Your task to perform on an android device: Go to settings Image 0: 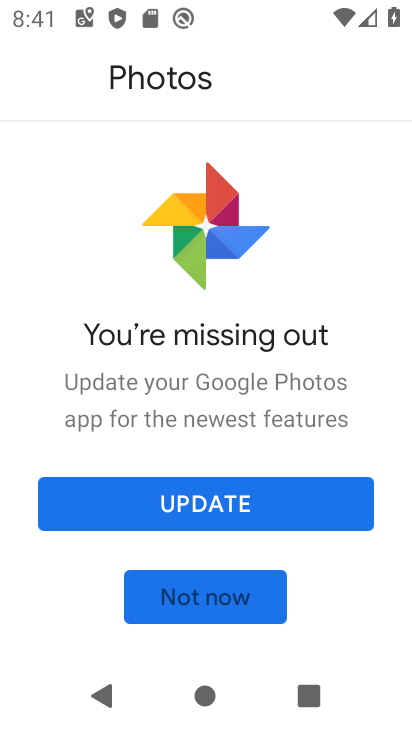
Step 0: press home button
Your task to perform on an android device: Go to settings Image 1: 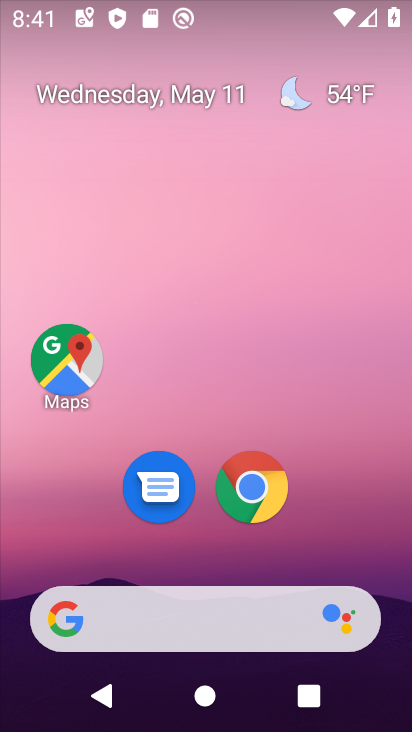
Step 1: drag from (149, 619) to (281, 116)
Your task to perform on an android device: Go to settings Image 2: 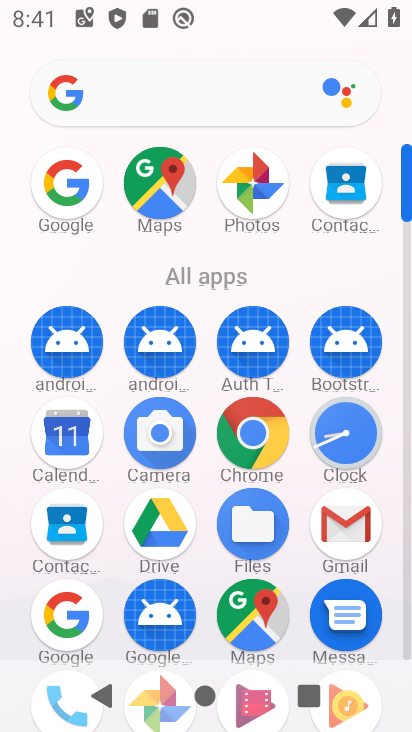
Step 2: drag from (160, 627) to (248, 328)
Your task to perform on an android device: Go to settings Image 3: 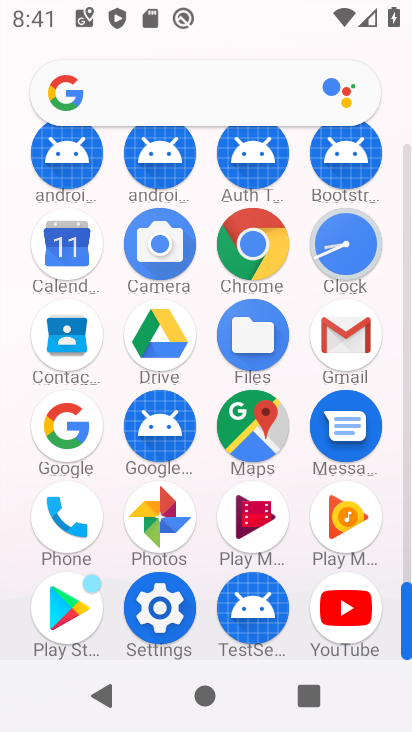
Step 3: click (152, 622)
Your task to perform on an android device: Go to settings Image 4: 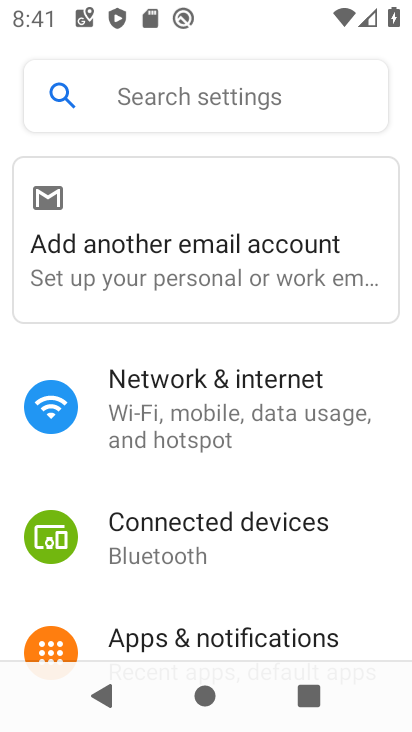
Step 4: task complete